Your task to perform on an android device: turn on airplane mode Image 0: 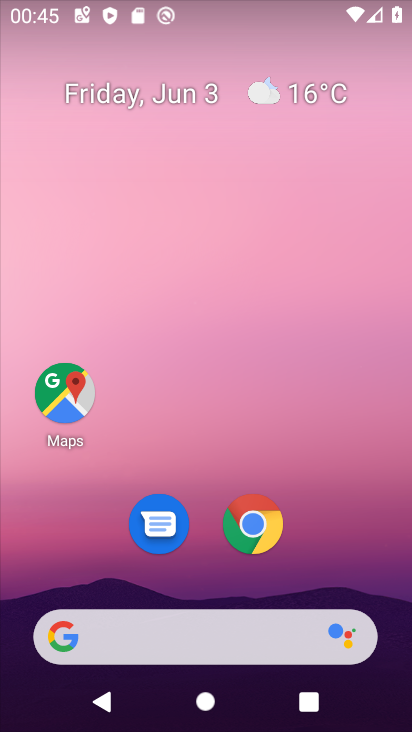
Step 0: drag from (245, 447) to (220, 0)
Your task to perform on an android device: turn on airplane mode Image 1: 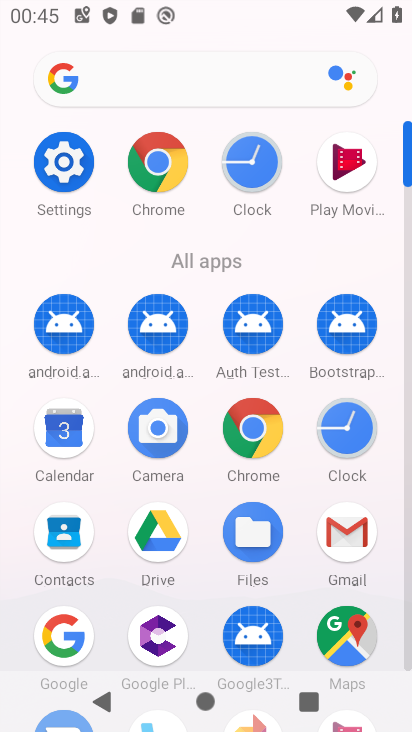
Step 1: click (72, 160)
Your task to perform on an android device: turn on airplane mode Image 2: 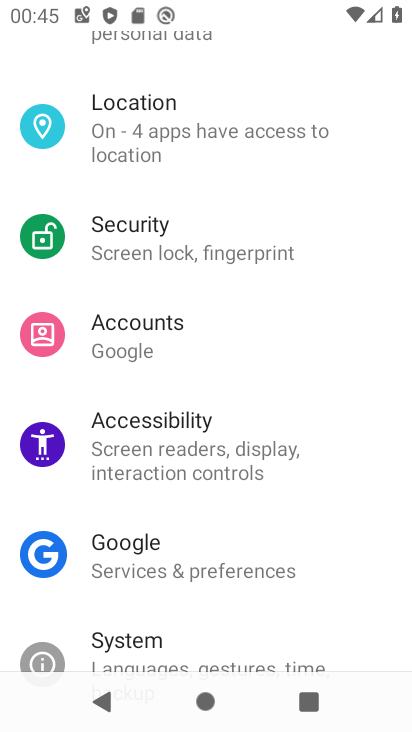
Step 2: drag from (207, 172) to (244, 619)
Your task to perform on an android device: turn on airplane mode Image 3: 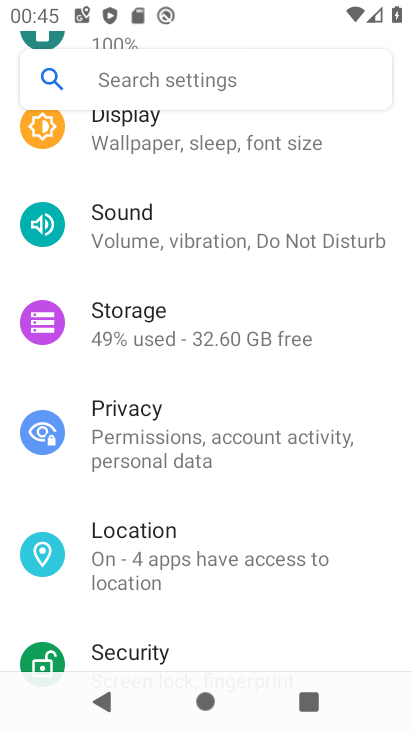
Step 3: drag from (223, 192) to (270, 627)
Your task to perform on an android device: turn on airplane mode Image 4: 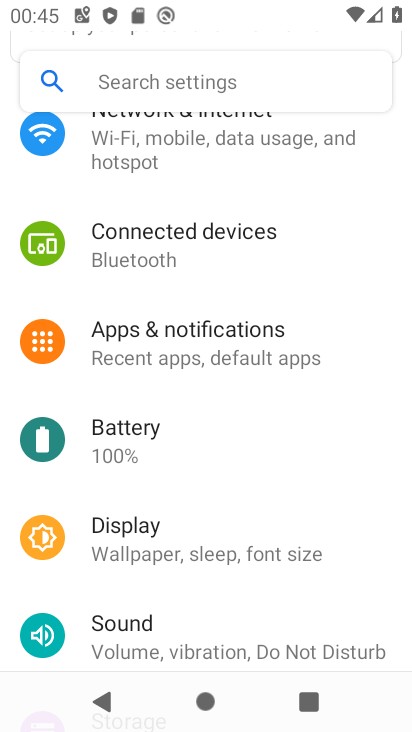
Step 4: drag from (219, 181) to (237, 447)
Your task to perform on an android device: turn on airplane mode Image 5: 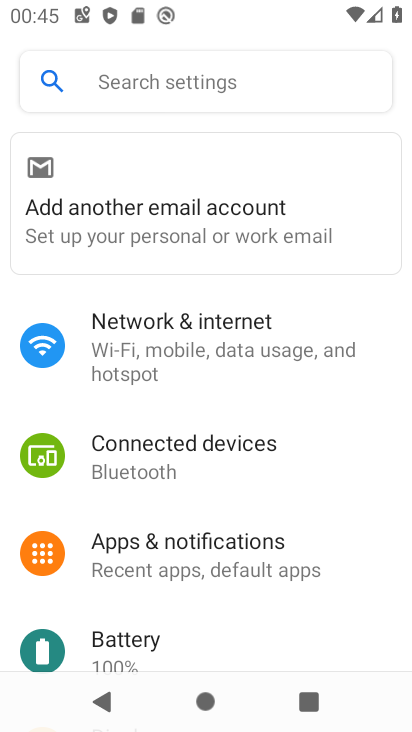
Step 5: click (195, 328)
Your task to perform on an android device: turn on airplane mode Image 6: 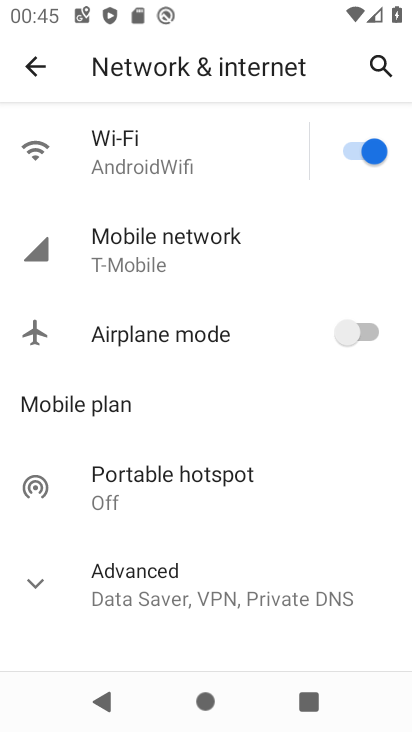
Step 6: click (369, 329)
Your task to perform on an android device: turn on airplane mode Image 7: 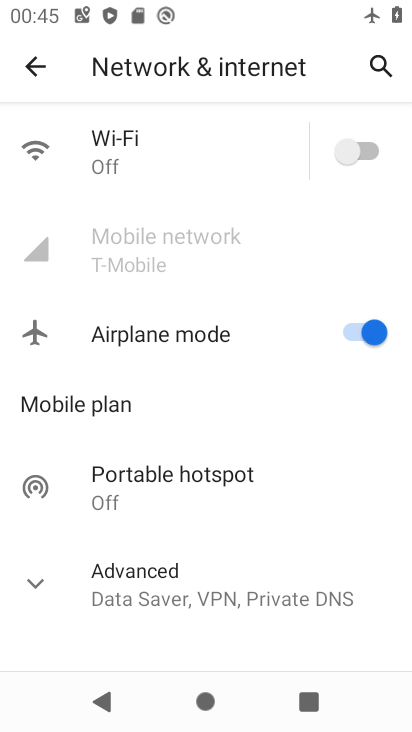
Step 7: task complete